Your task to perform on an android device: set an alarm Image 0: 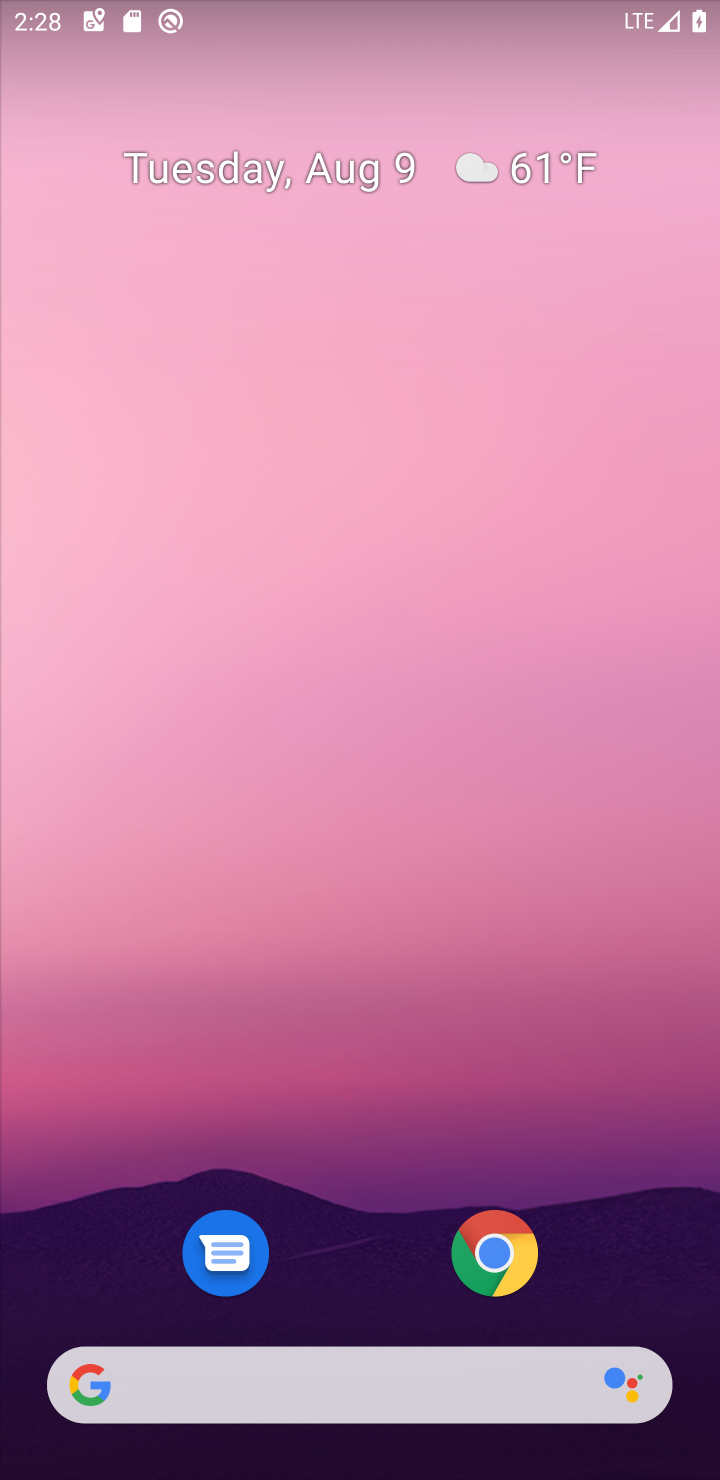
Step 0: drag from (595, 1031) to (189, 39)
Your task to perform on an android device: set an alarm Image 1: 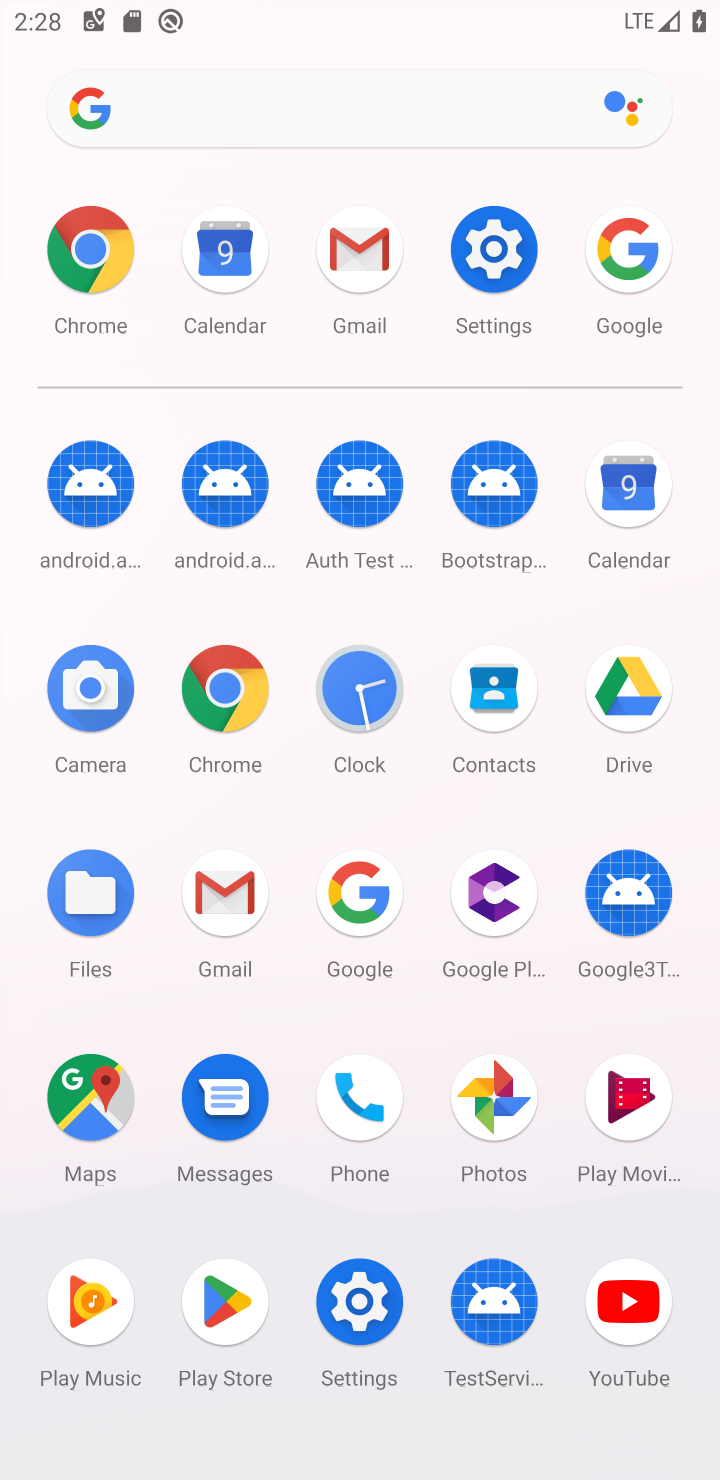
Step 1: click (317, 702)
Your task to perform on an android device: set an alarm Image 2: 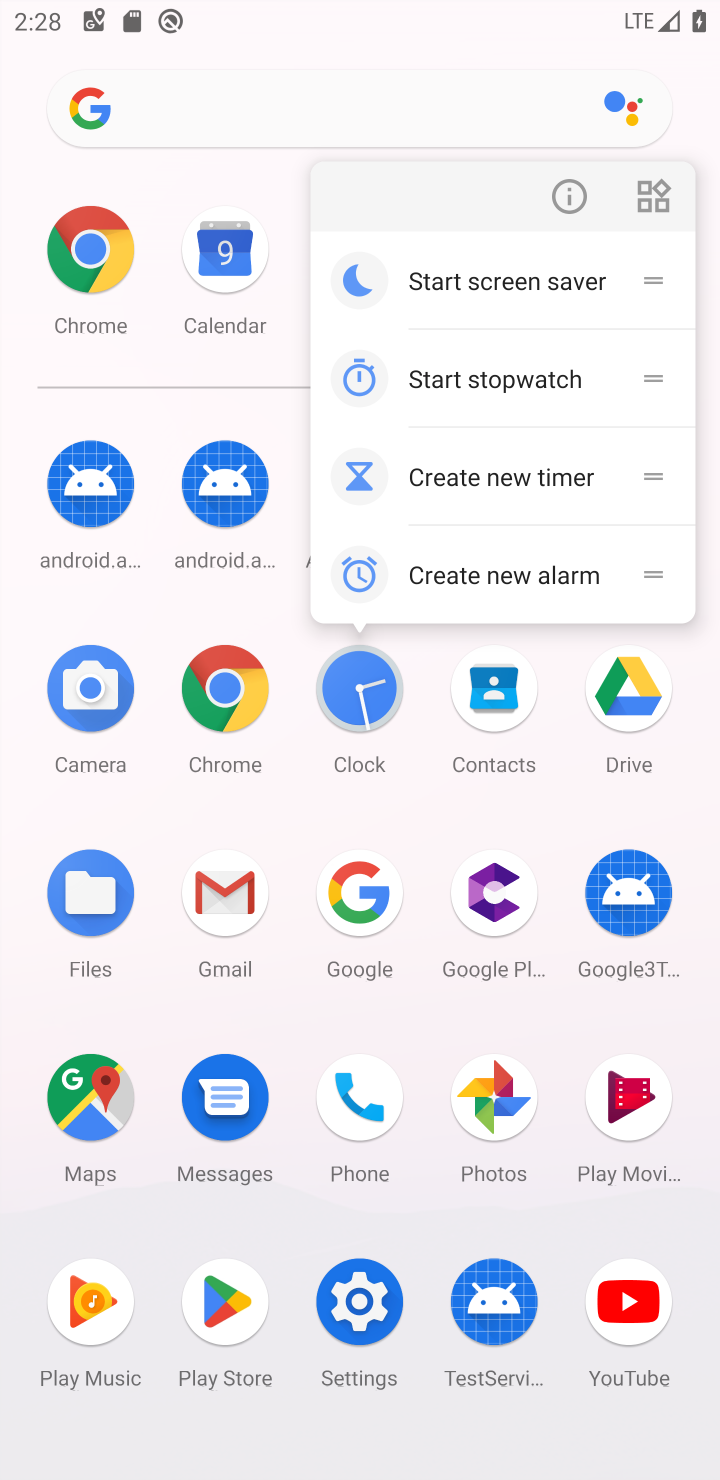
Step 2: click (325, 696)
Your task to perform on an android device: set an alarm Image 3: 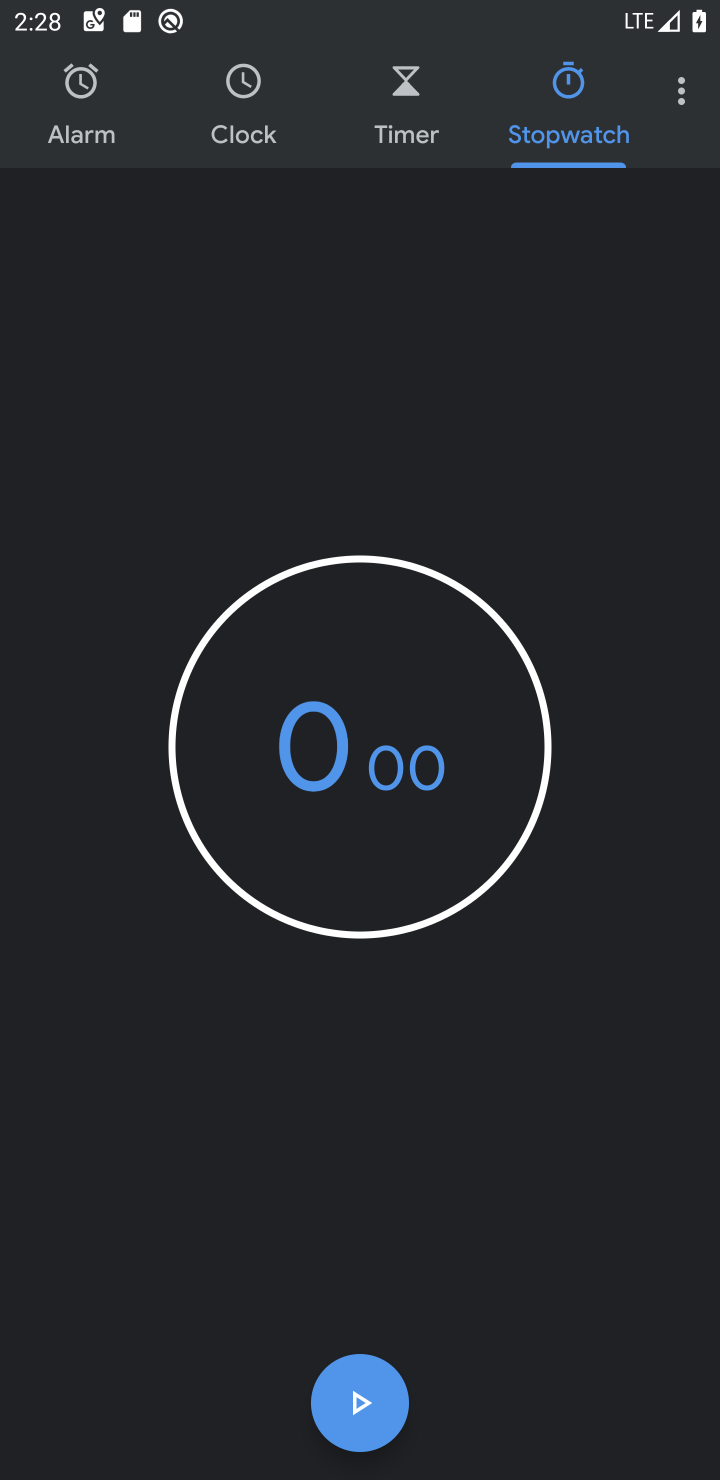
Step 3: click (69, 117)
Your task to perform on an android device: set an alarm Image 4: 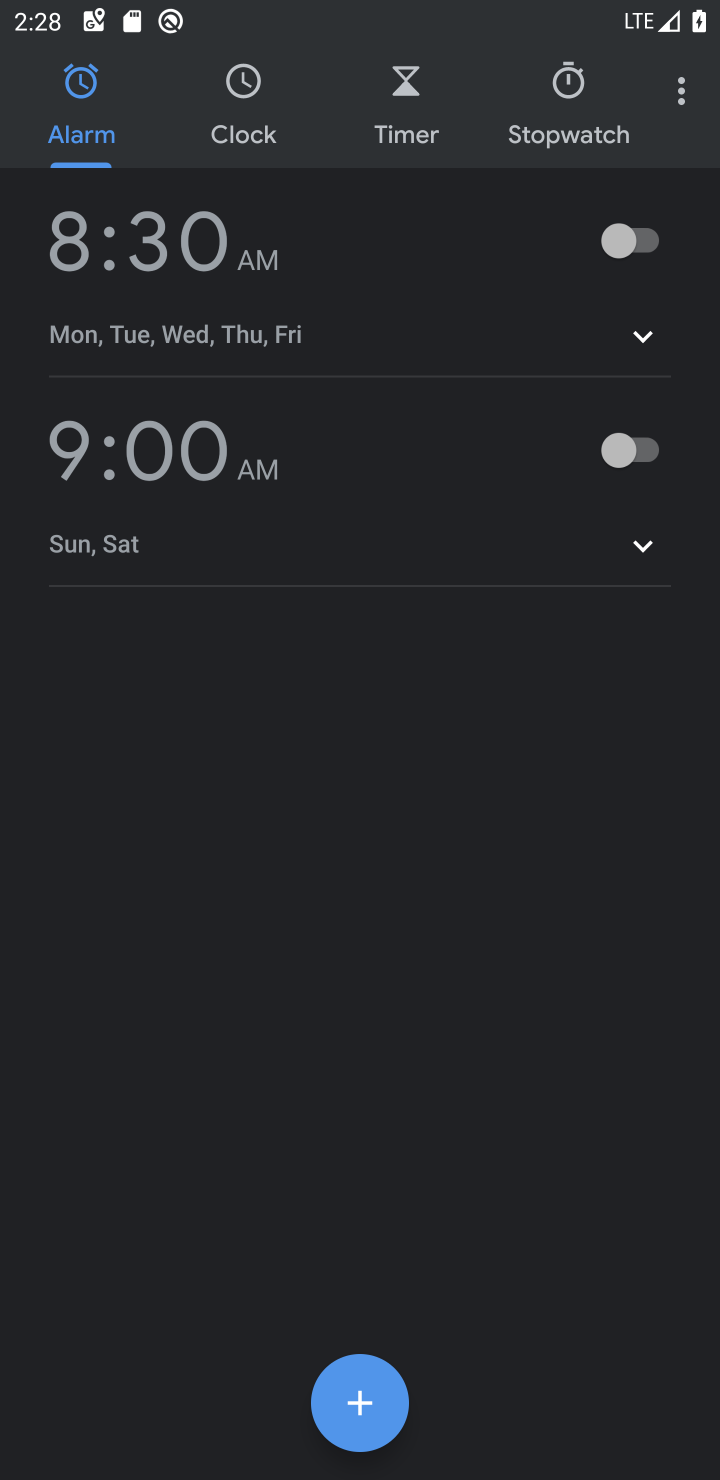
Step 4: click (641, 234)
Your task to perform on an android device: set an alarm Image 5: 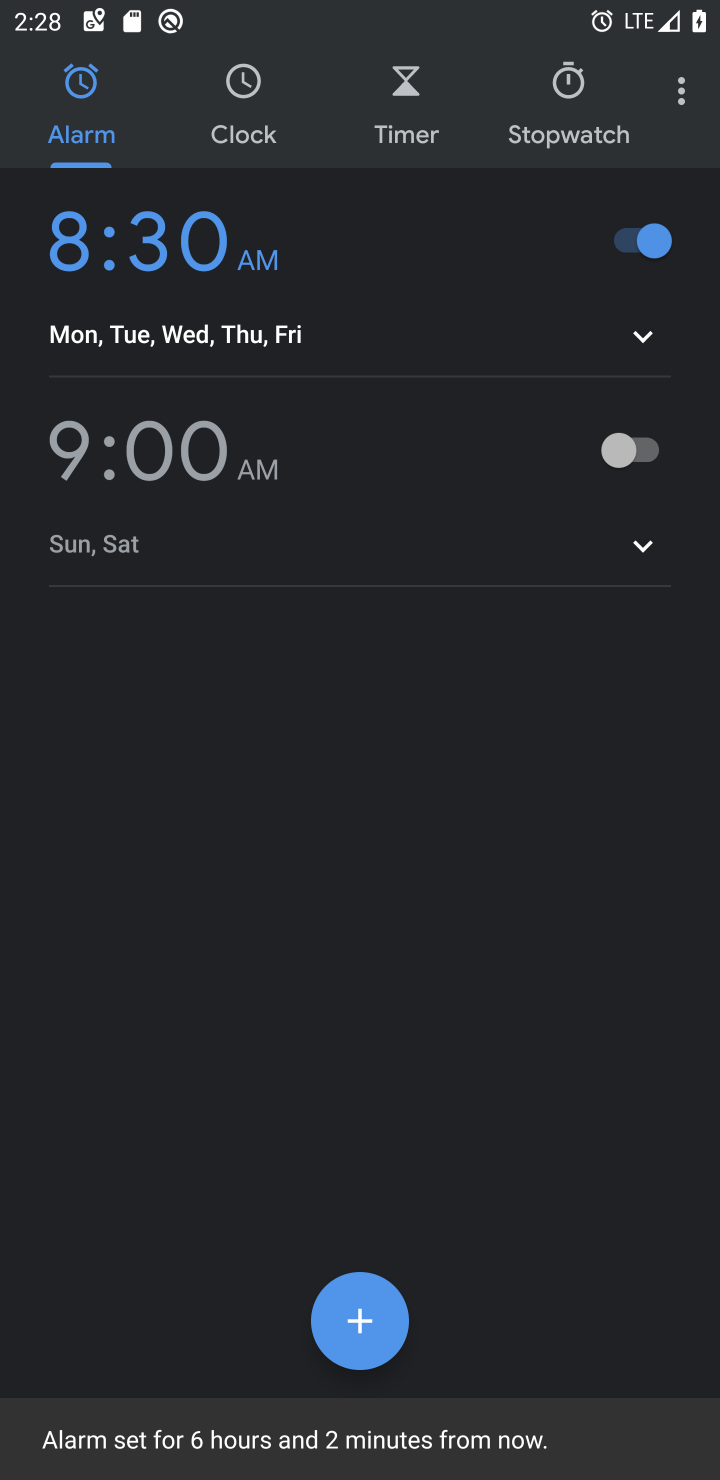
Step 5: task complete